Your task to perform on an android device: Is it going to rain today? Image 0: 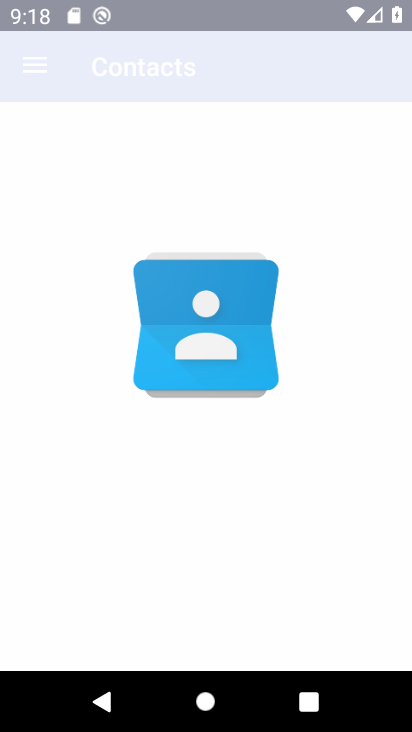
Step 0: press home button
Your task to perform on an android device: Is it going to rain today? Image 1: 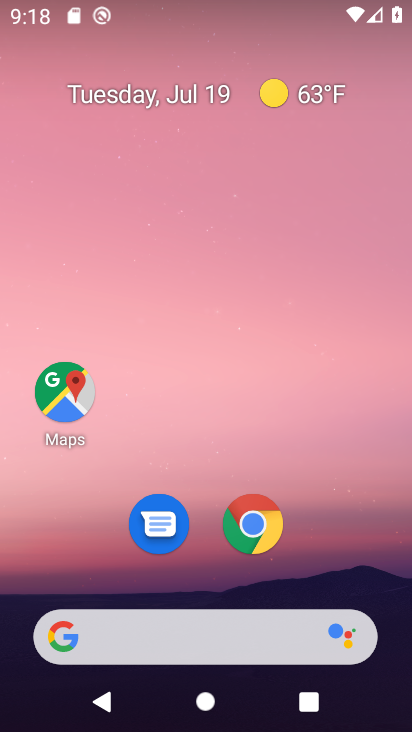
Step 1: click (183, 632)
Your task to perform on an android device: Is it going to rain today? Image 2: 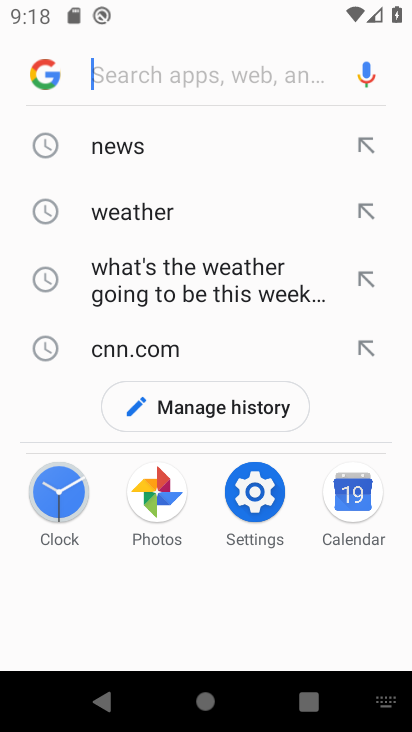
Step 2: click (142, 212)
Your task to perform on an android device: Is it going to rain today? Image 3: 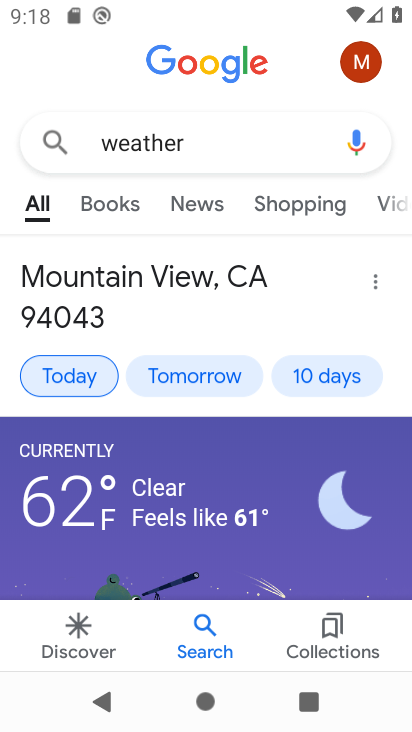
Step 3: task complete